Your task to perform on an android device: Open the Play Movies app and select the watchlist tab. Image 0: 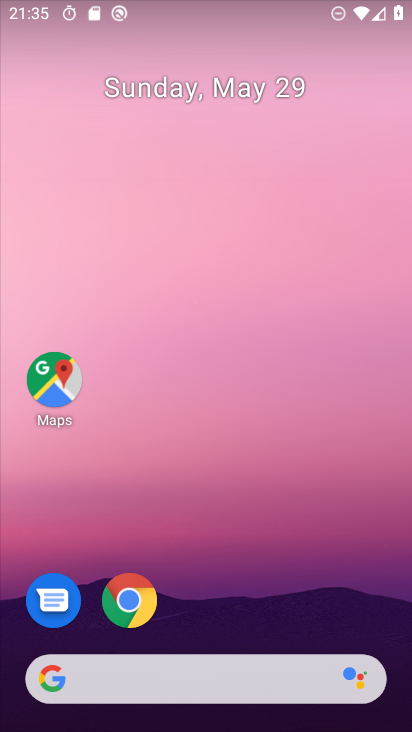
Step 0: drag from (328, 625) to (335, 207)
Your task to perform on an android device: Open the Play Movies app and select the watchlist tab. Image 1: 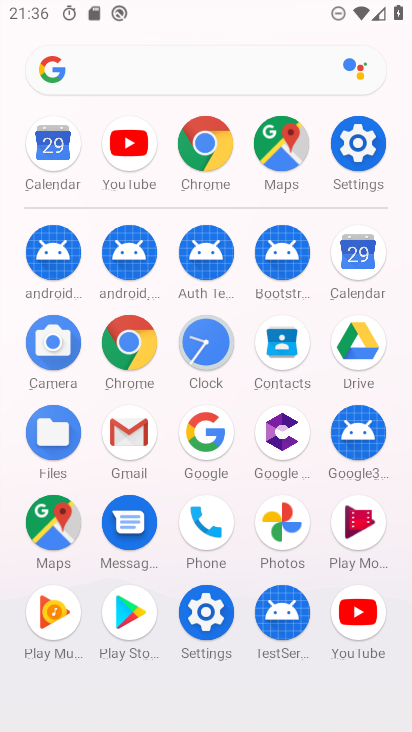
Step 1: click (354, 540)
Your task to perform on an android device: Open the Play Movies app and select the watchlist tab. Image 2: 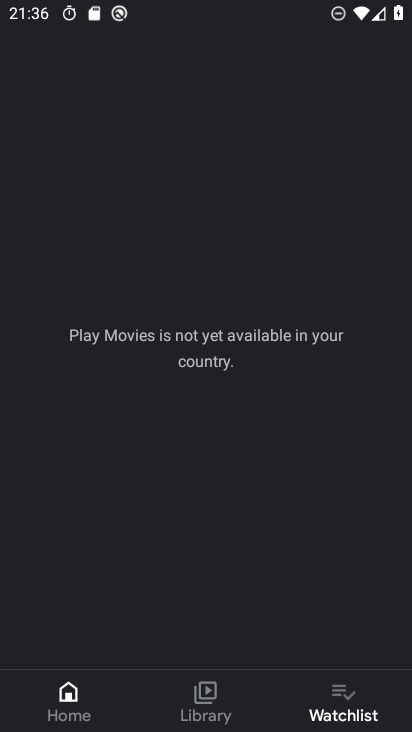
Step 2: task complete